Your task to perform on an android device: Open the web browser Image 0: 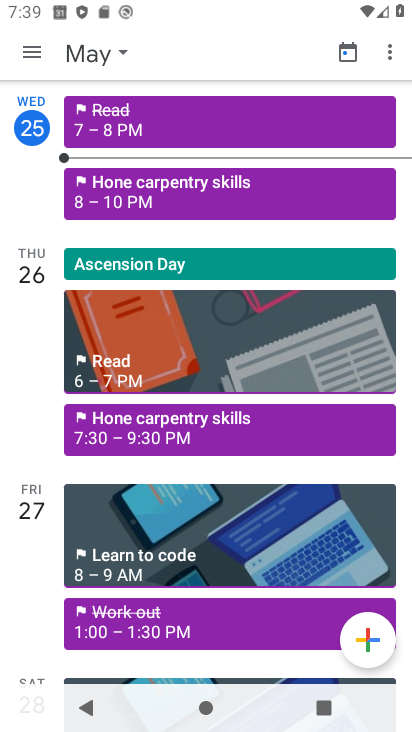
Step 0: press home button
Your task to perform on an android device: Open the web browser Image 1: 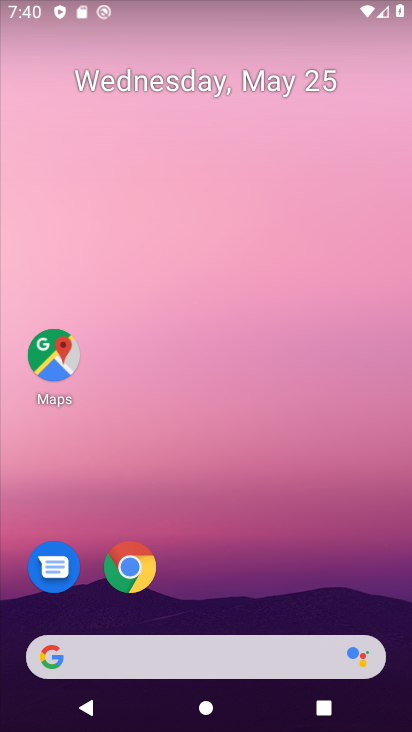
Step 1: click (144, 578)
Your task to perform on an android device: Open the web browser Image 2: 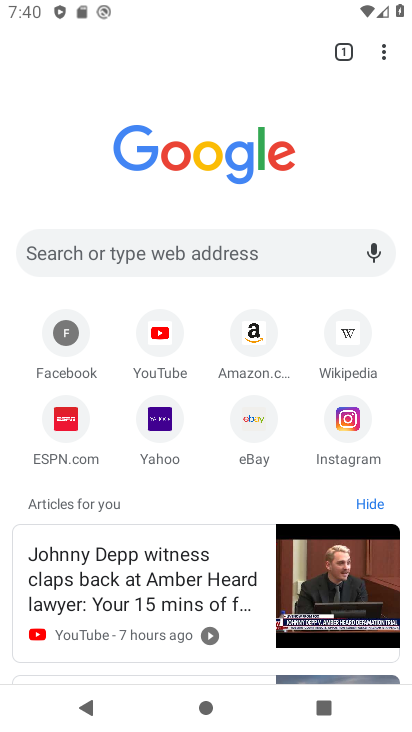
Step 2: click (144, 578)
Your task to perform on an android device: Open the web browser Image 3: 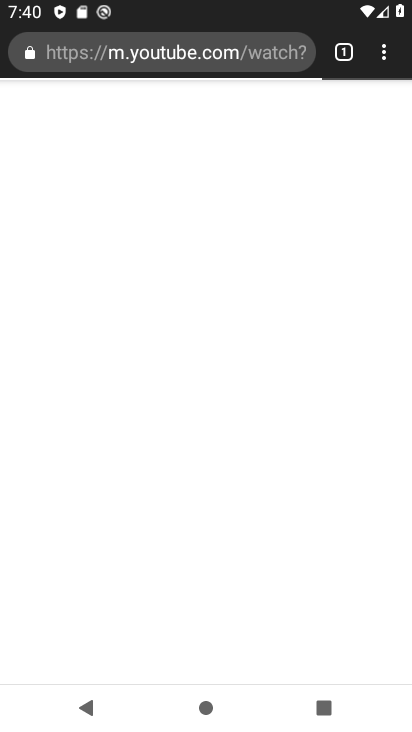
Step 3: task complete